Your task to perform on an android device: create a new album in the google photos Image 0: 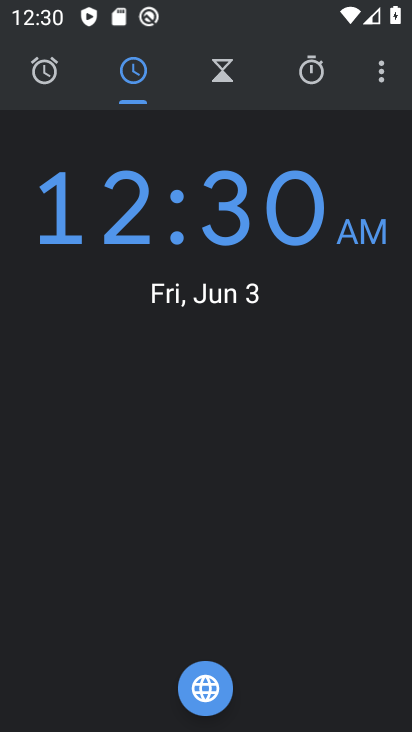
Step 0: task complete